Your task to perform on an android device: Add "energizer triple a" to the cart on ebay, then select checkout. Image 0: 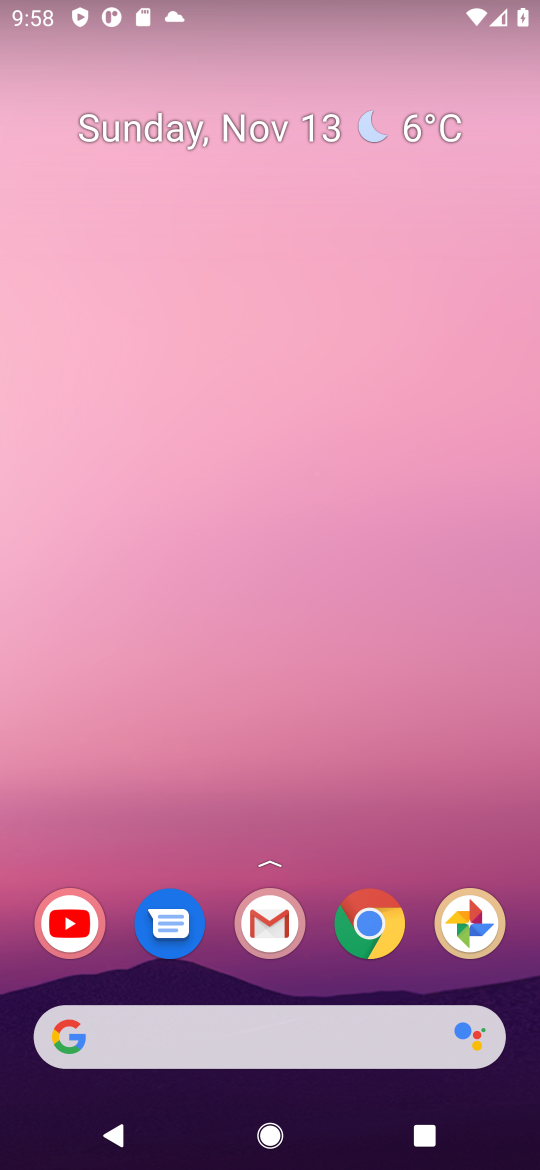
Step 0: click (393, 915)
Your task to perform on an android device: Add "energizer triple a" to the cart on ebay, then select checkout. Image 1: 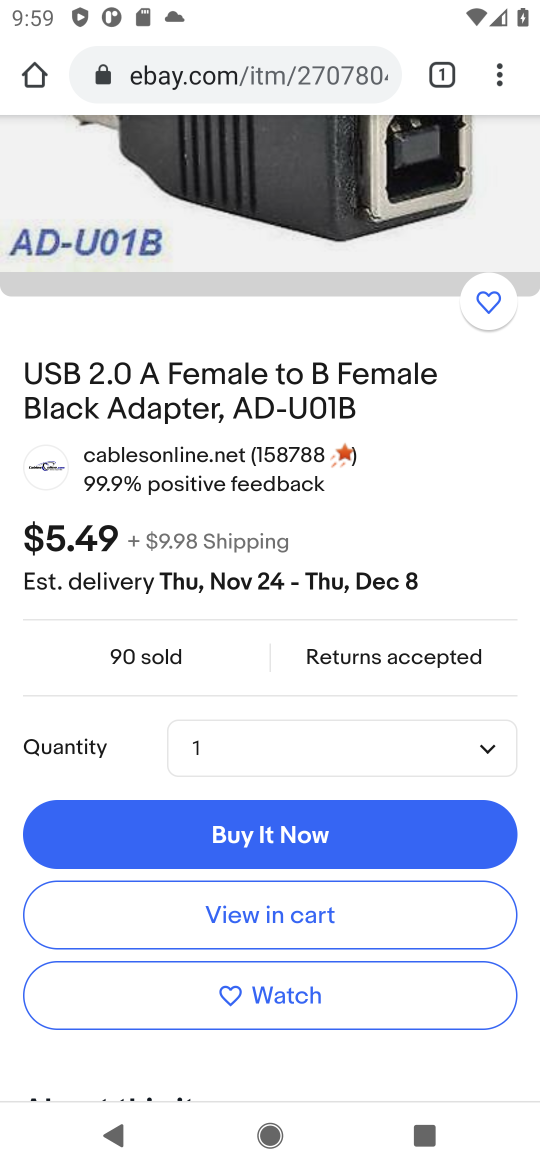
Step 1: drag from (336, 191) to (473, 1000)
Your task to perform on an android device: Add "energizer triple a" to the cart on ebay, then select checkout. Image 2: 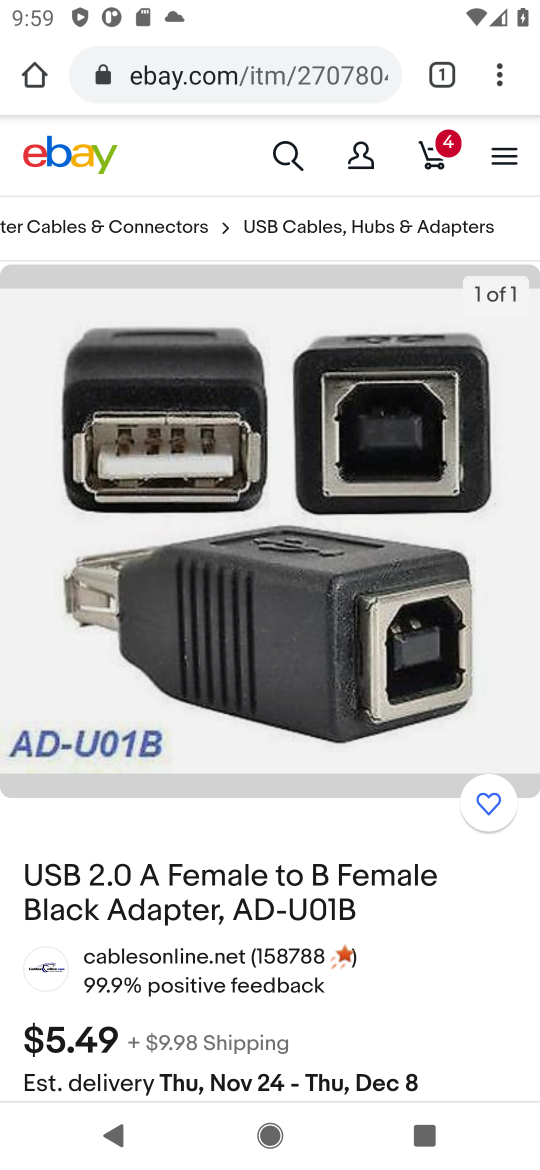
Step 2: click (286, 150)
Your task to perform on an android device: Add "energizer triple a" to the cart on ebay, then select checkout. Image 3: 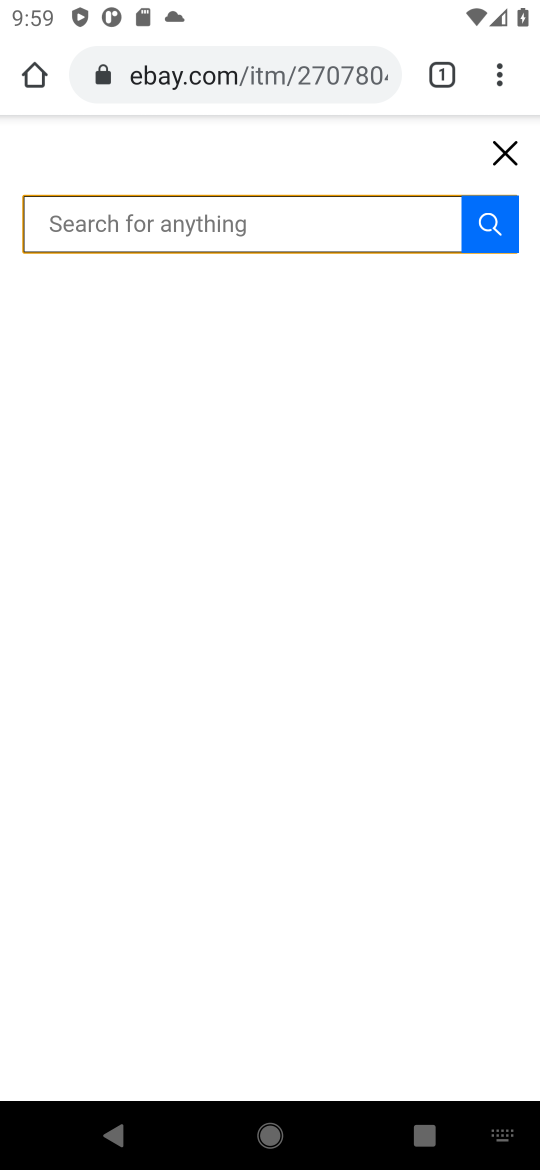
Step 3: type "energizer triple a"
Your task to perform on an android device: Add "energizer triple a" to the cart on ebay, then select checkout. Image 4: 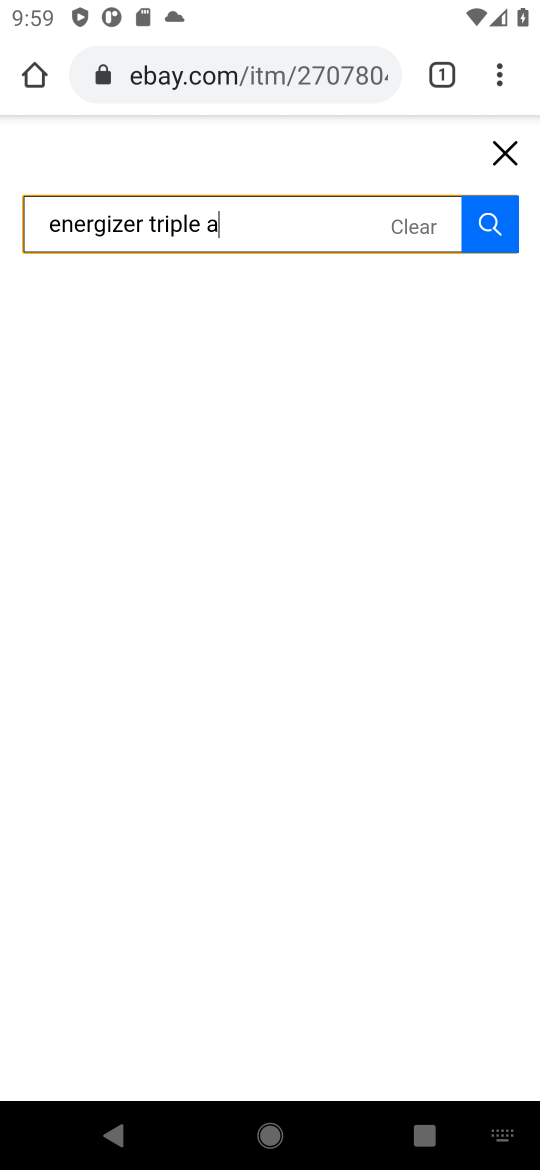
Step 4: press enter
Your task to perform on an android device: Add "energizer triple a" to the cart on ebay, then select checkout. Image 5: 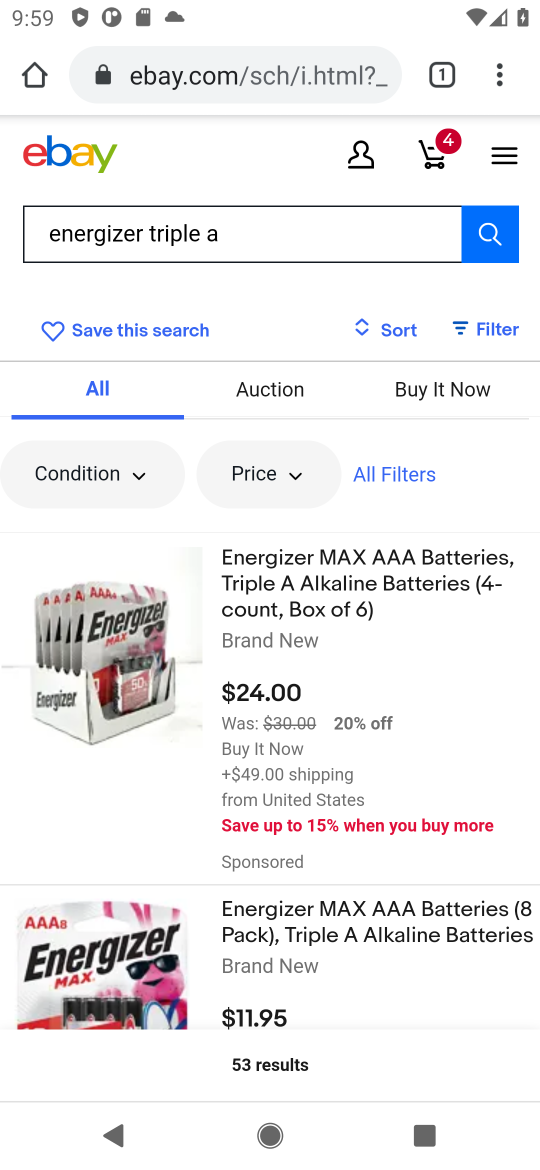
Step 5: click (102, 650)
Your task to perform on an android device: Add "energizer triple a" to the cart on ebay, then select checkout. Image 6: 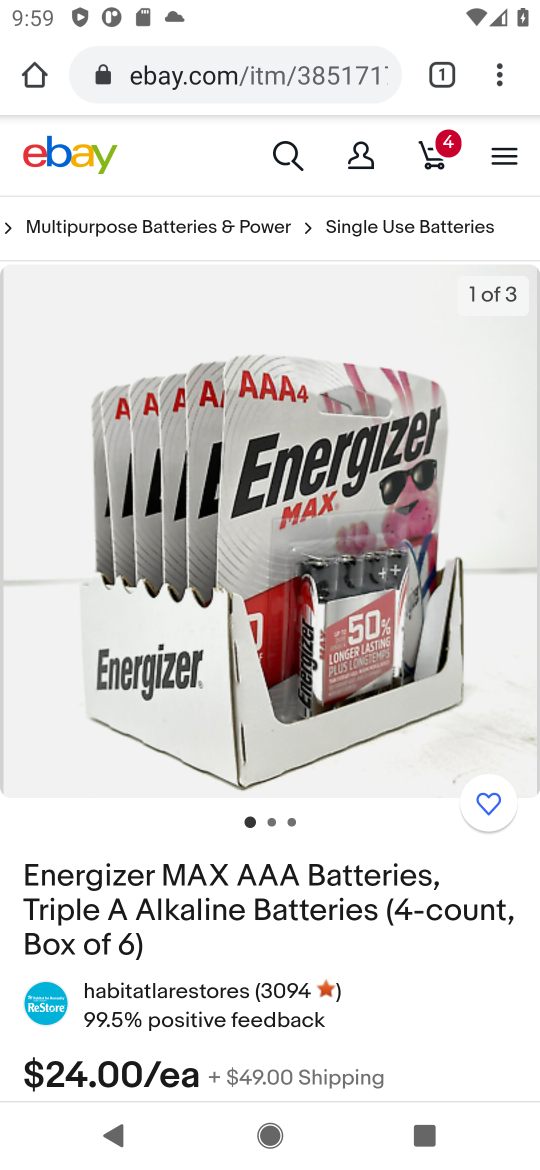
Step 6: drag from (443, 1039) to (446, 593)
Your task to perform on an android device: Add "energizer triple a" to the cart on ebay, then select checkout. Image 7: 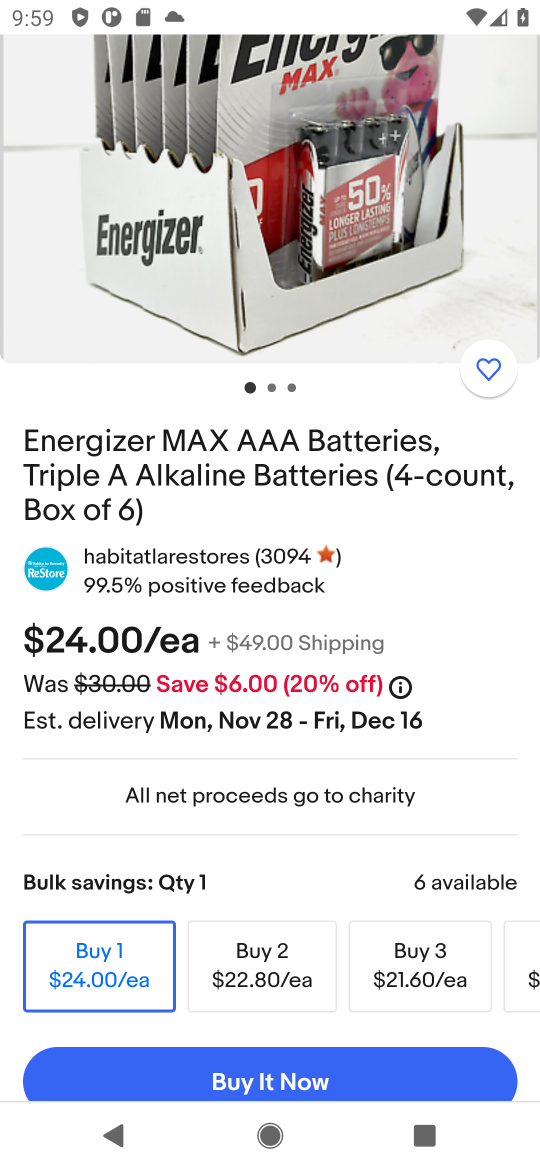
Step 7: drag from (308, 853) to (282, 560)
Your task to perform on an android device: Add "energizer triple a" to the cart on ebay, then select checkout. Image 8: 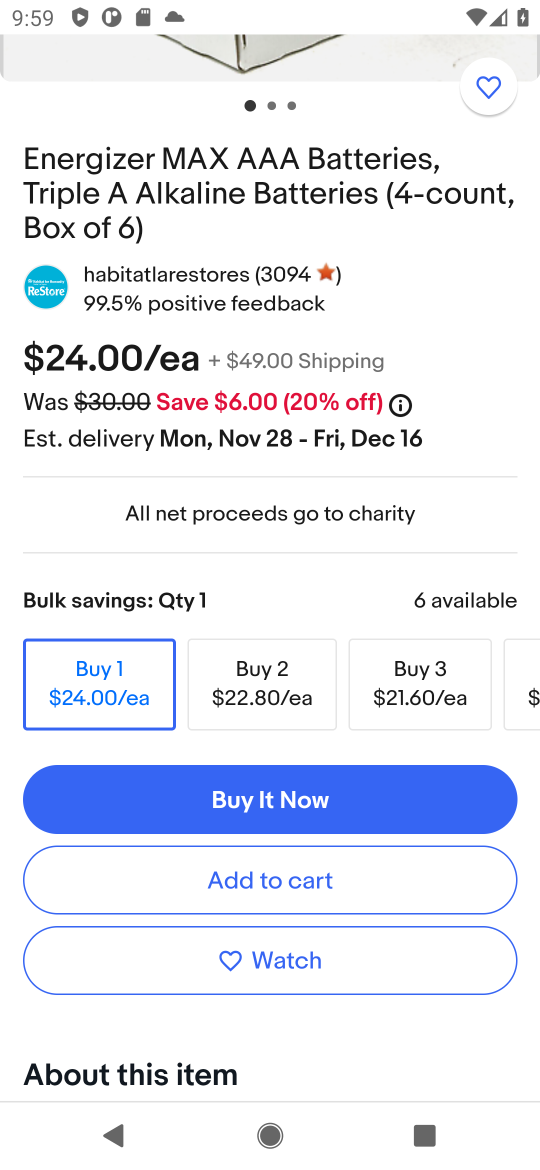
Step 8: click (277, 880)
Your task to perform on an android device: Add "energizer triple a" to the cart on ebay, then select checkout. Image 9: 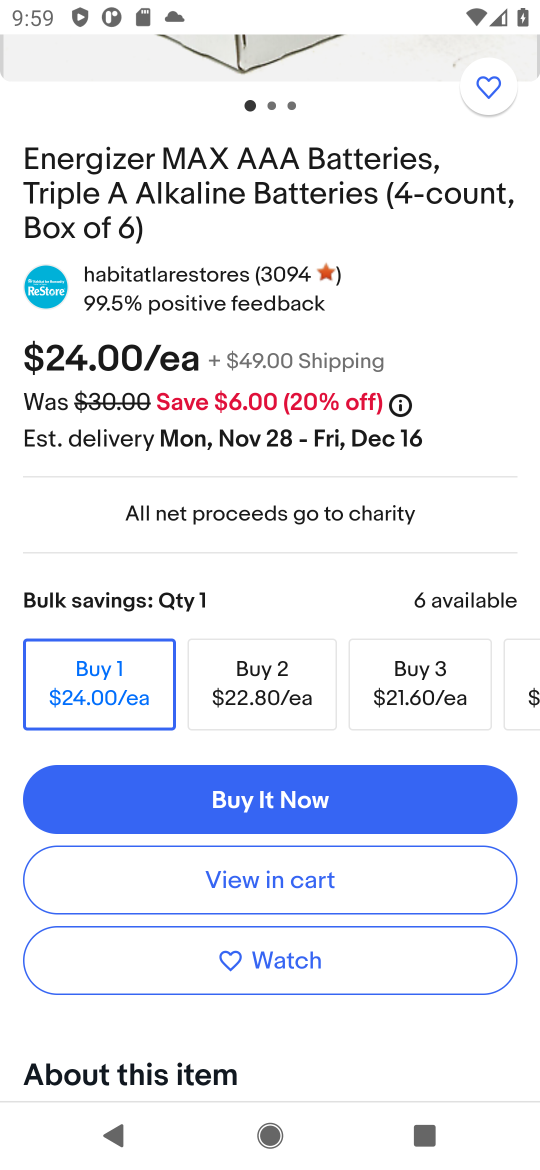
Step 9: click (277, 880)
Your task to perform on an android device: Add "energizer triple a" to the cart on ebay, then select checkout. Image 10: 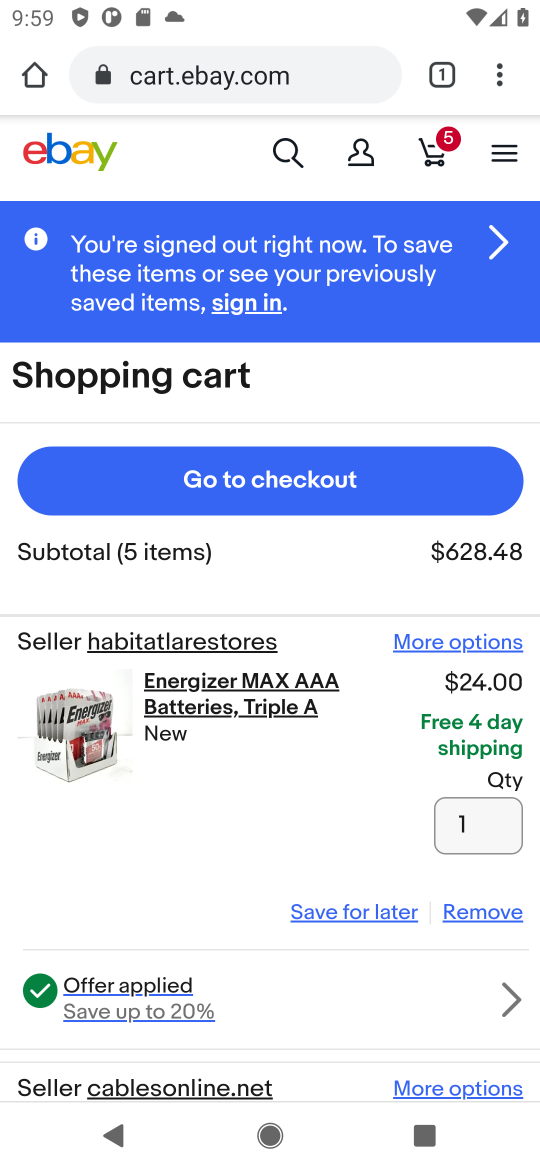
Step 10: click (303, 460)
Your task to perform on an android device: Add "energizer triple a" to the cart on ebay, then select checkout. Image 11: 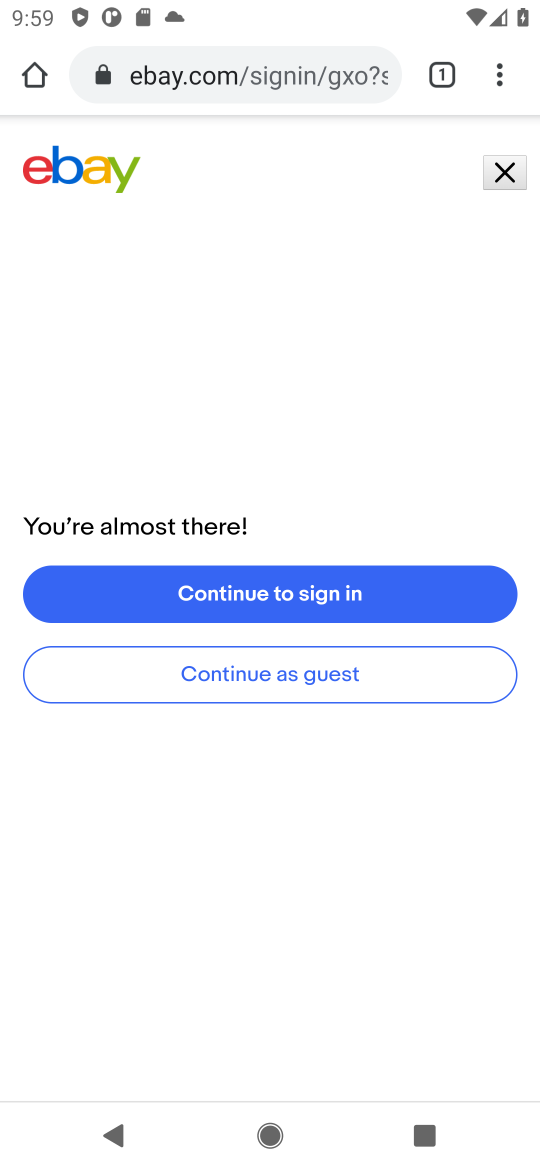
Step 11: task complete